Your task to perform on an android device: toggle sleep mode Image 0: 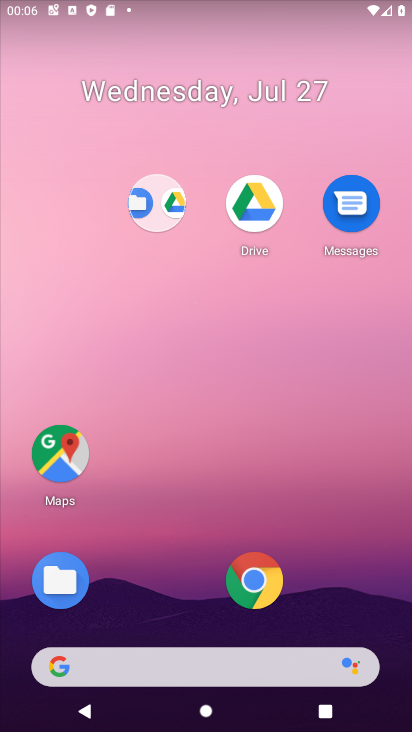
Step 0: drag from (138, 636) to (155, 58)
Your task to perform on an android device: toggle sleep mode Image 1: 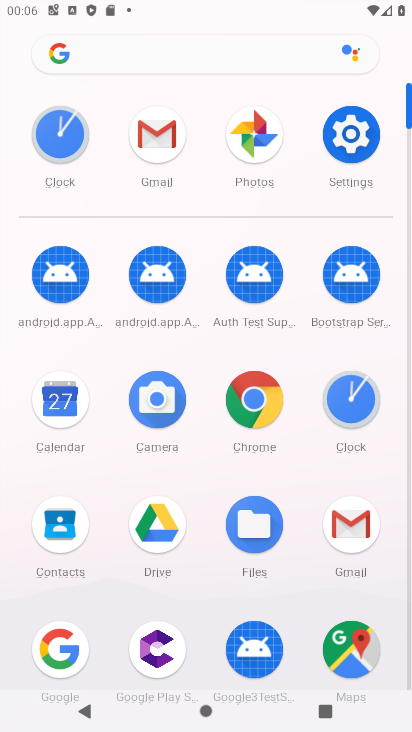
Step 1: click (352, 159)
Your task to perform on an android device: toggle sleep mode Image 2: 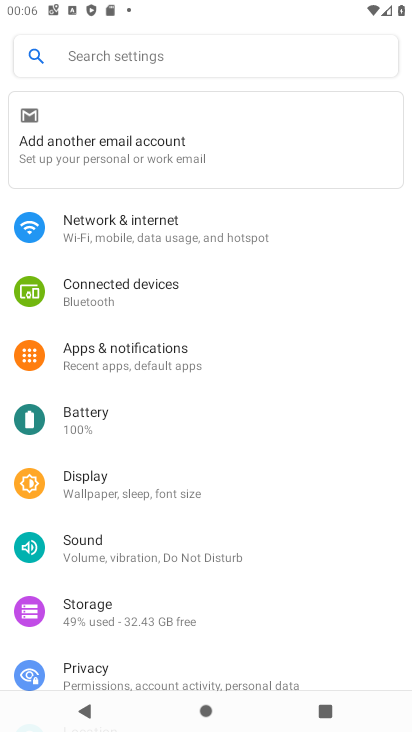
Step 2: task complete